Your task to perform on an android device: turn pop-ups off in chrome Image 0: 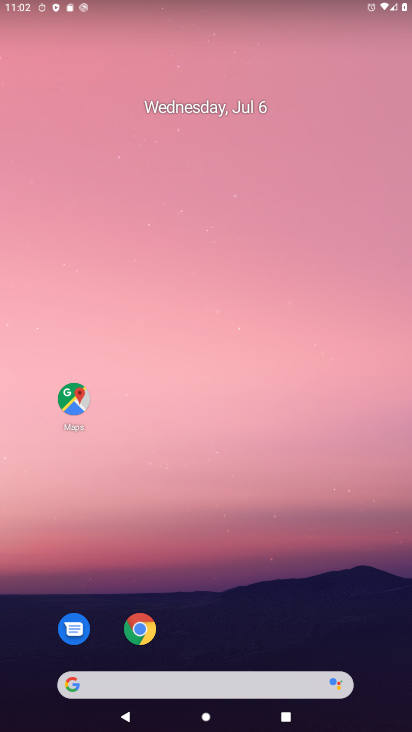
Step 0: drag from (217, 625) to (212, 137)
Your task to perform on an android device: turn pop-ups off in chrome Image 1: 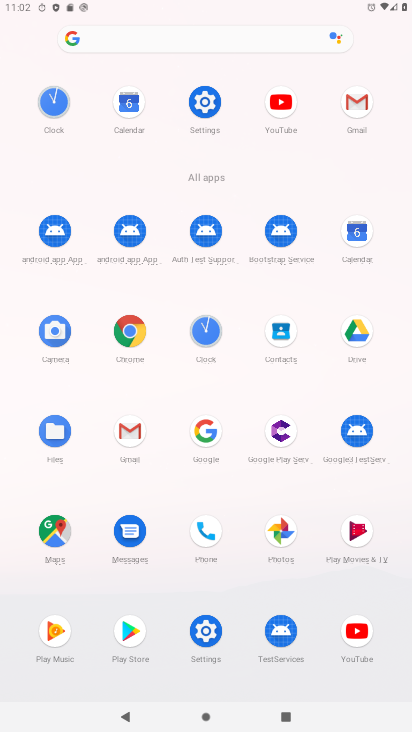
Step 1: click (131, 325)
Your task to perform on an android device: turn pop-ups off in chrome Image 2: 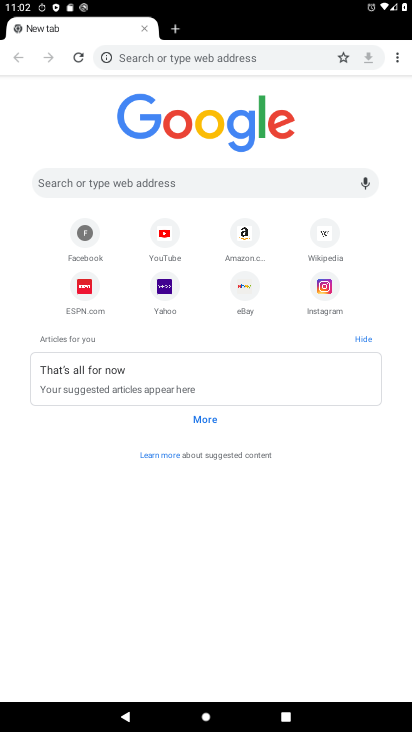
Step 2: click (393, 54)
Your task to perform on an android device: turn pop-ups off in chrome Image 3: 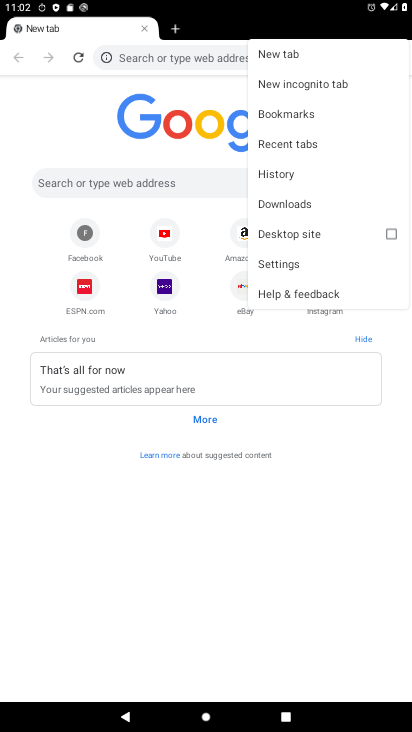
Step 3: click (303, 265)
Your task to perform on an android device: turn pop-ups off in chrome Image 4: 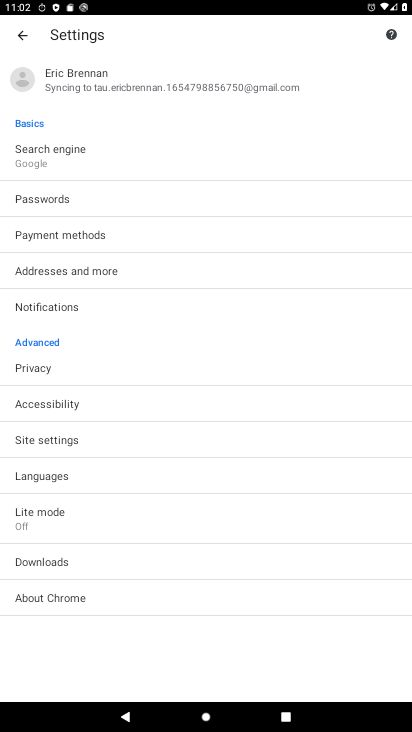
Step 4: click (39, 436)
Your task to perform on an android device: turn pop-ups off in chrome Image 5: 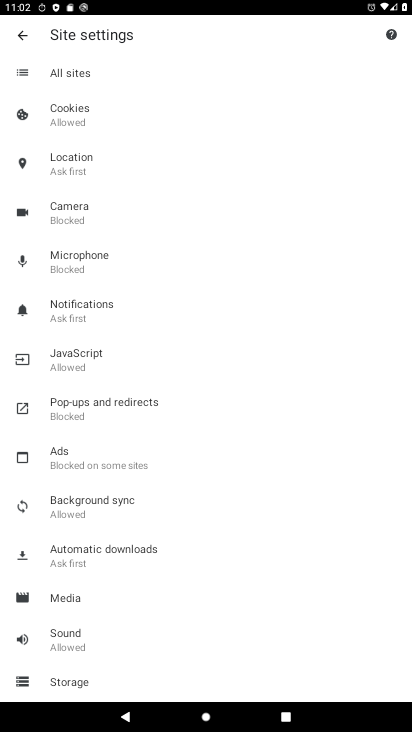
Step 5: click (116, 401)
Your task to perform on an android device: turn pop-ups off in chrome Image 6: 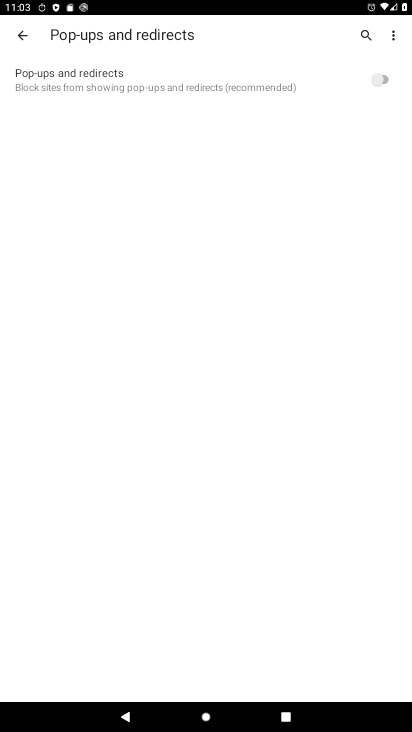
Step 6: task complete